Your task to perform on an android device: Open Amazon Image 0: 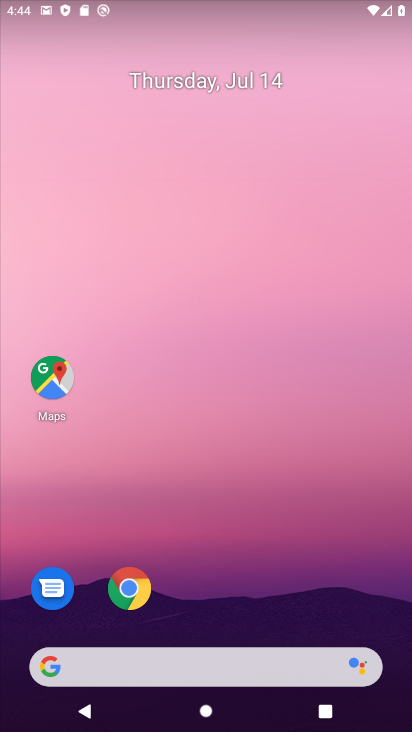
Step 0: drag from (212, 631) to (292, 182)
Your task to perform on an android device: Open Amazon Image 1: 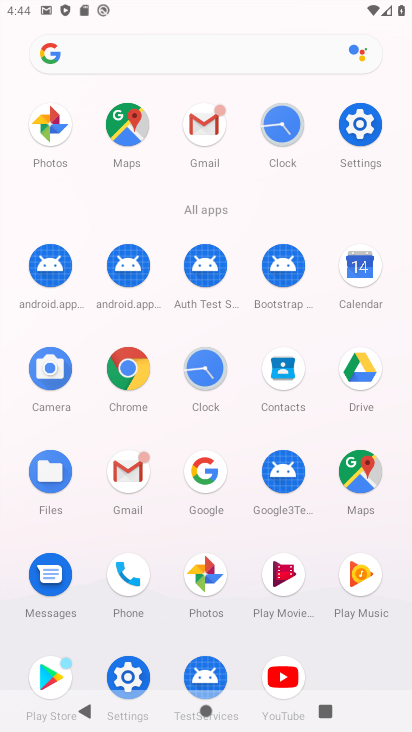
Step 1: click (133, 378)
Your task to perform on an android device: Open Amazon Image 2: 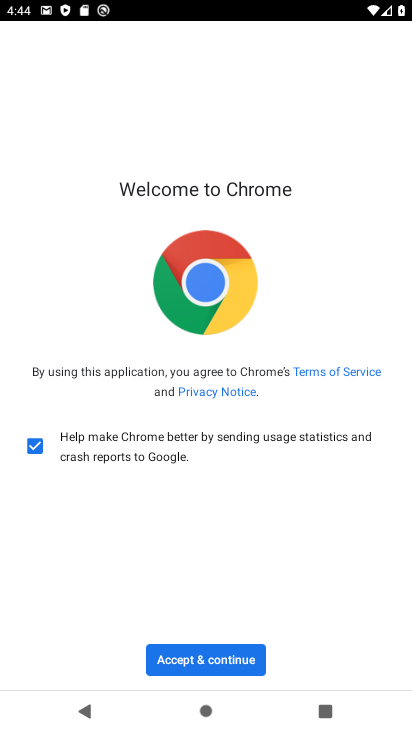
Step 2: click (249, 665)
Your task to perform on an android device: Open Amazon Image 3: 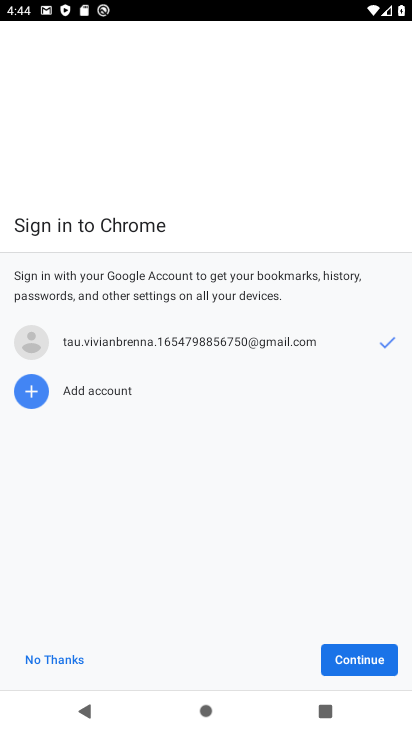
Step 3: click (338, 656)
Your task to perform on an android device: Open Amazon Image 4: 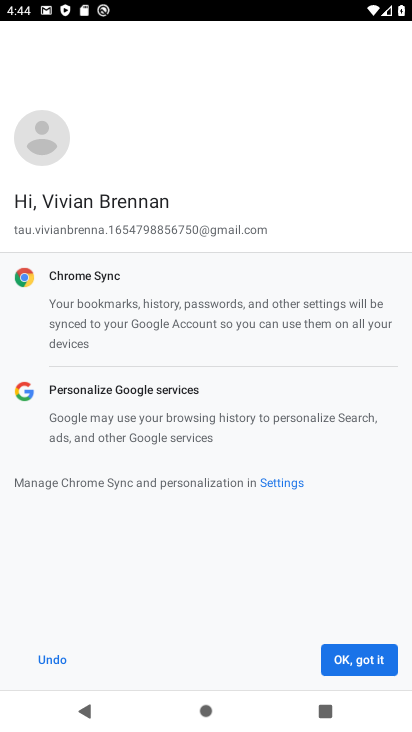
Step 4: click (358, 665)
Your task to perform on an android device: Open Amazon Image 5: 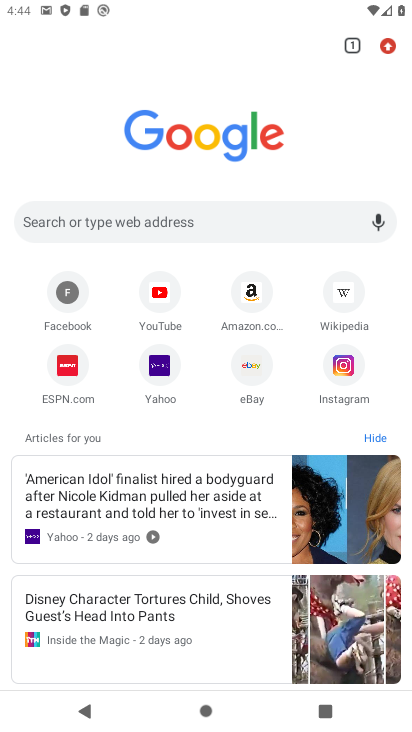
Step 5: click (259, 296)
Your task to perform on an android device: Open Amazon Image 6: 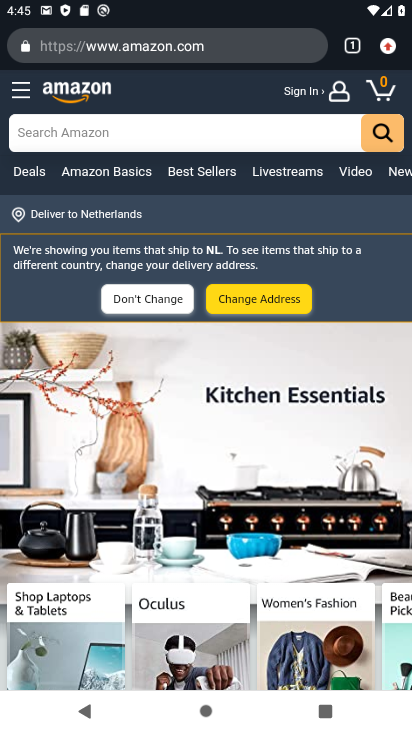
Step 6: task complete